Your task to perform on an android device: turn off notifications settings in the gmail app Image 0: 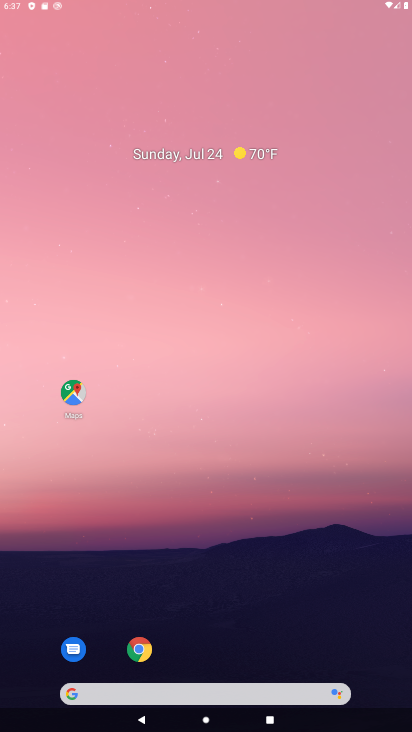
Step 0: click (167, 140)
Your task to perform on an android device: turn off notifications settings in the gmail app Image 1: 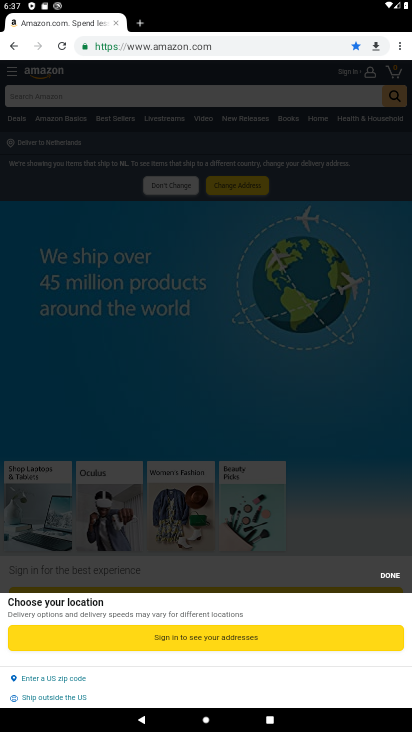
Step 1: press home button
Your task to perform on an android device: turn off notifications settings in the gmail app Image 2: 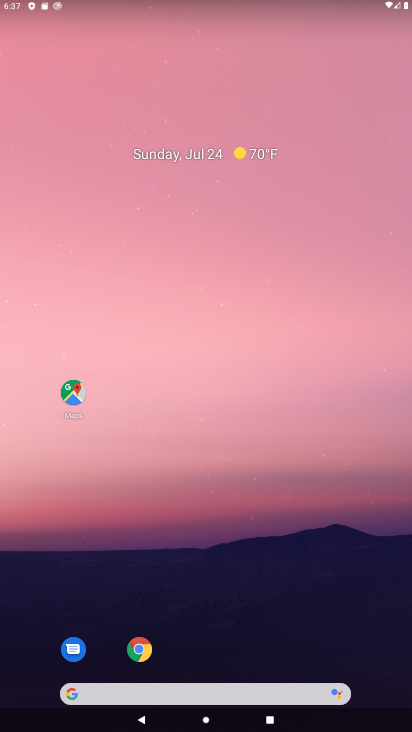
Step 2: drag from (240, 542) to (151, 73)
Your task to perform on an android device: turn off notifications settings in the gmail app Image 3: 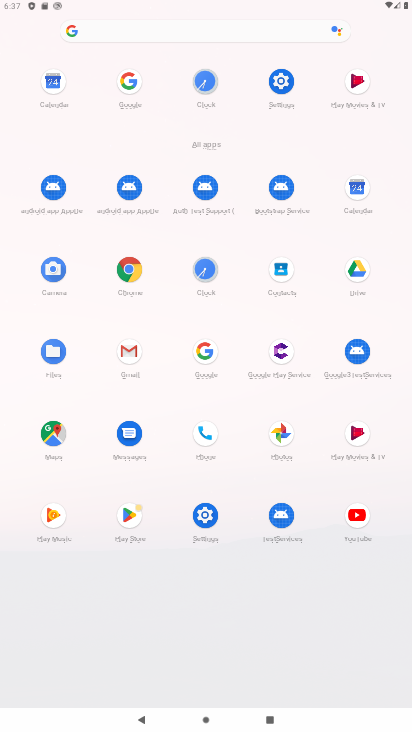
Step 3: click (128, 357)
Your task to perform on an android device: turn off notifications settings in the gmail app Image 4: 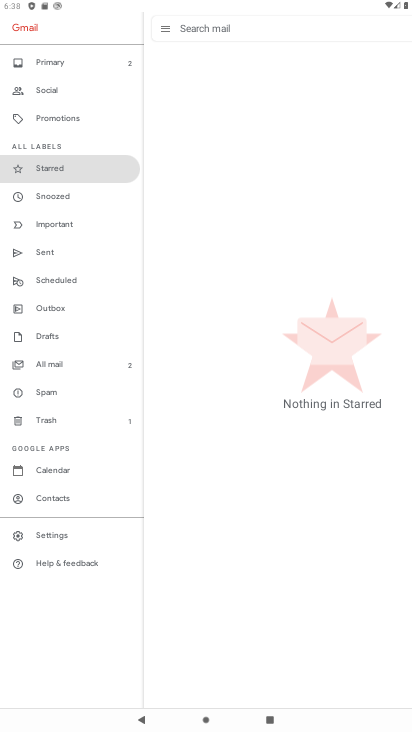
Step 4: click (49, 536)
Your task to perform on an android device: turn off notifications settings in the gmail app Image 5: 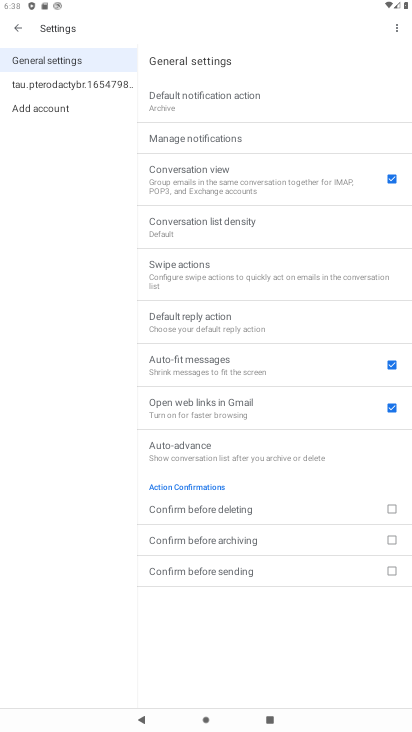
Step 5: click (199, 138)
Your task to perform on an android device: turn off notifications settings in the gmail app Image 6: 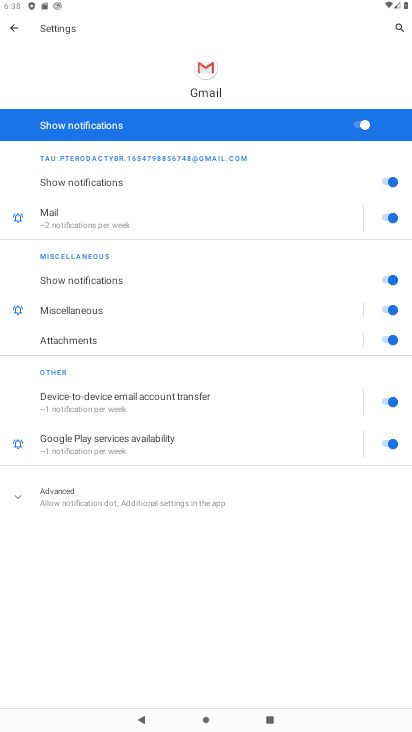
Step 6: click (362, 123)
Your task to perform on an android device: turn off notifications settings in the gmail app Image 7: 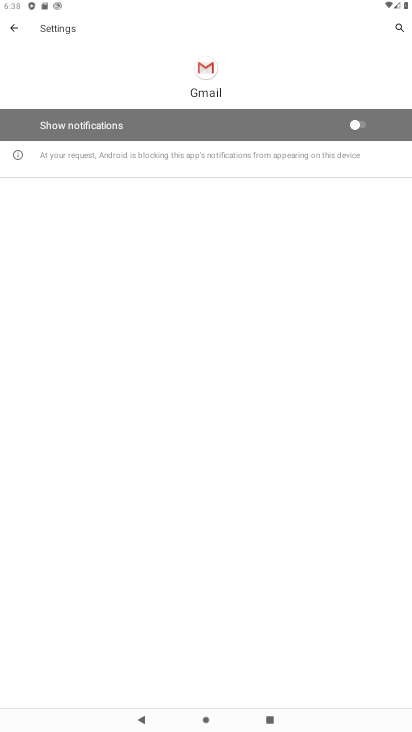
Step 7: task complete